Your task to perform on an android device: turn off location history Image 0: 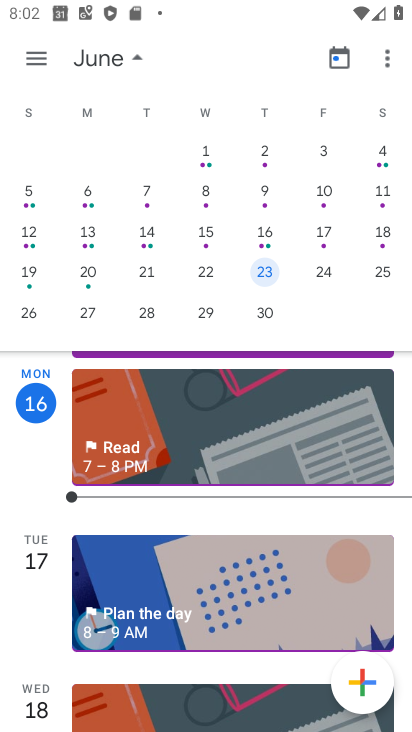
Step 0: press home button
Your task to perform on an android device: turn off location history Image 1: 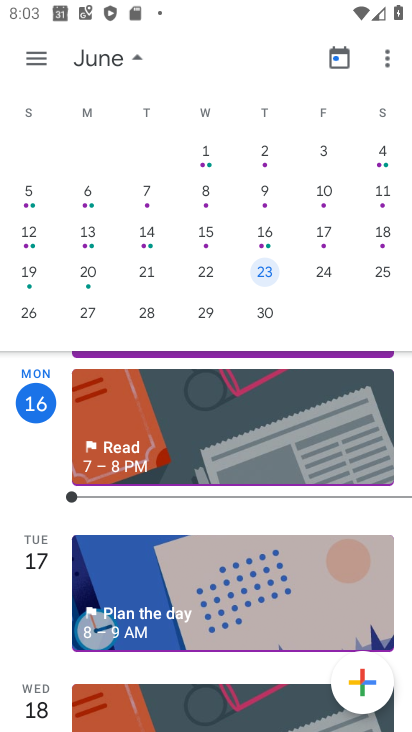
Step 1: drag from (209, 526) to (246, 153)
Your task to perform on an android device: turn off location history Image 2: 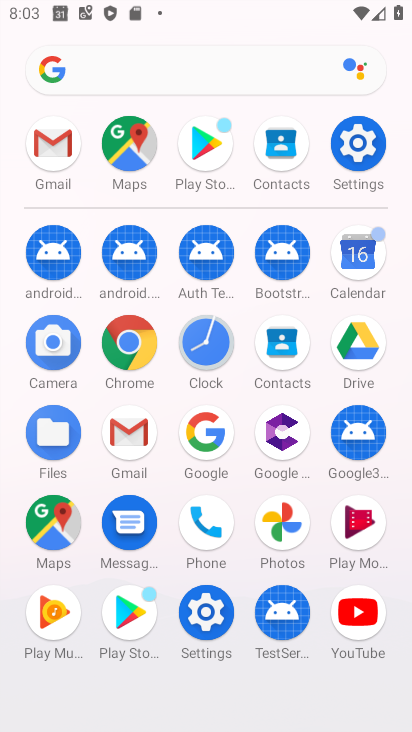
Step 2: click (359, 138)
Your task to perform on an android device: turn off location history Image 3: 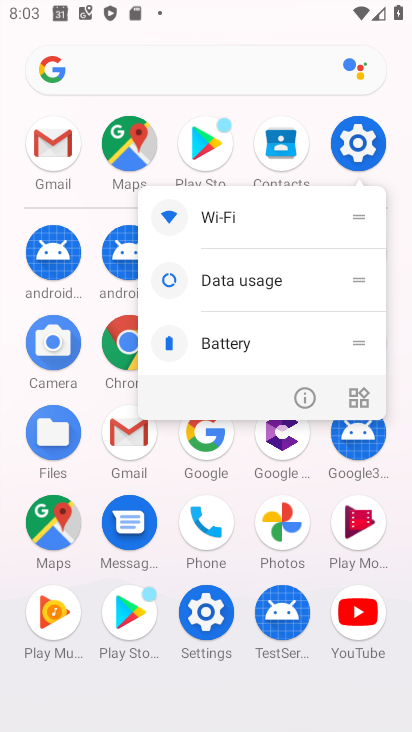
Step 3: click (304, 386)
Your task to perform on an android device: turn off location history Image 4: 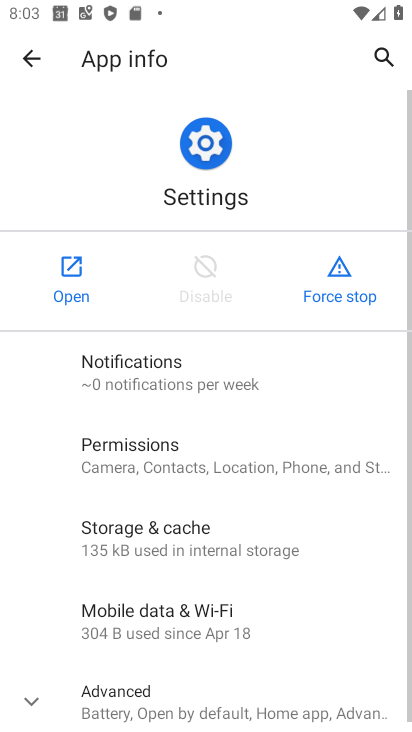
Step 4: click (65, 283)
Your task to perform on an android device: turn off location history Image 5: 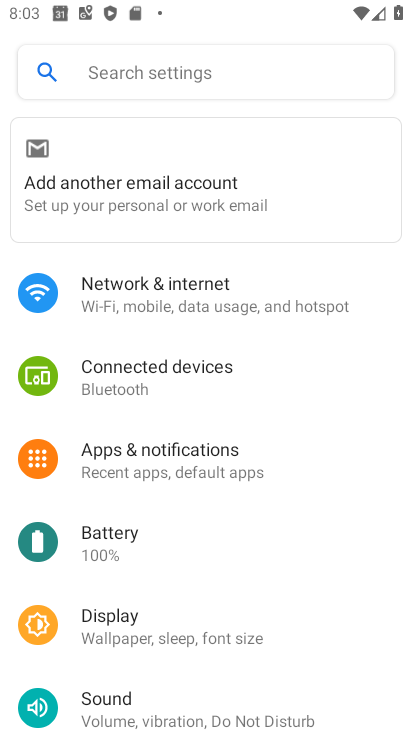
Step 5: drag from (194, 647) to (277, 84)
Your task to perform on an android device: turn off location history Image 6: 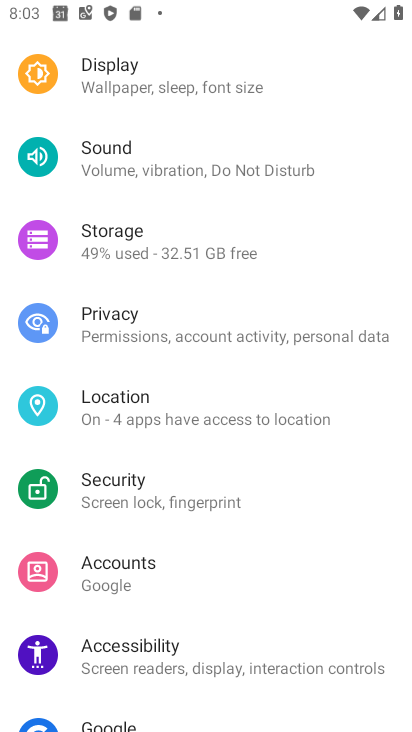
Step 6: click (171, 407)
Your task to perform on an android device: turn off location history Image 7: 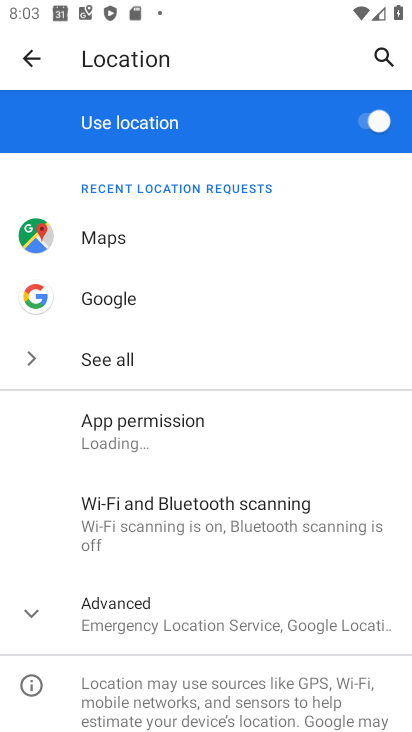
Step 7: click (162, 606)
Your task to perform on an android device: turn off location history Image 8: 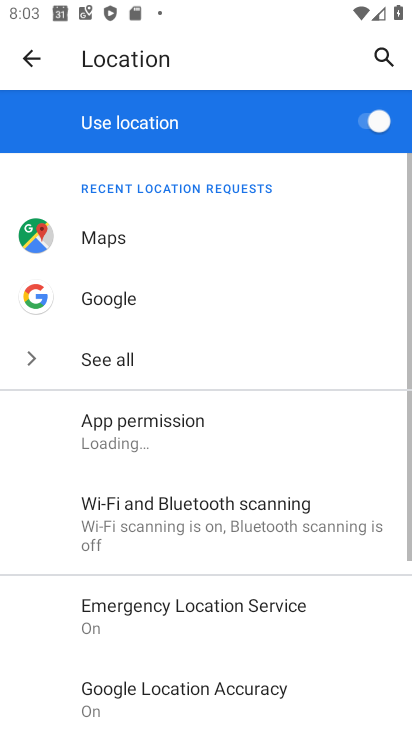
Step 8: drag from (162, 606) to (229, 111)
Your task to perform on an android device: turn off location history Image 9: 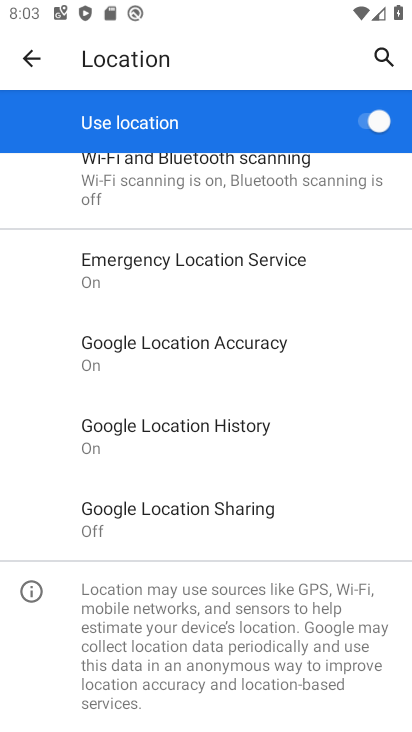
Step 9: click (205, 411)
Your task to perform on an android device: turn off location history Image 10: 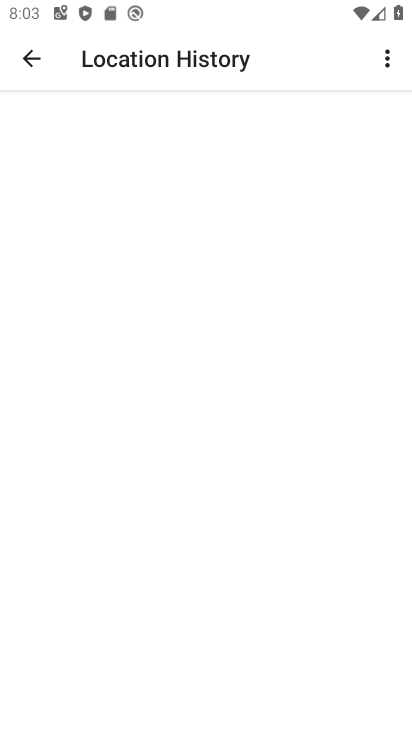
Step 10: drag from (210, 534) to (251, 139)
Your task to perform on an android device: turn off location history Image 11: 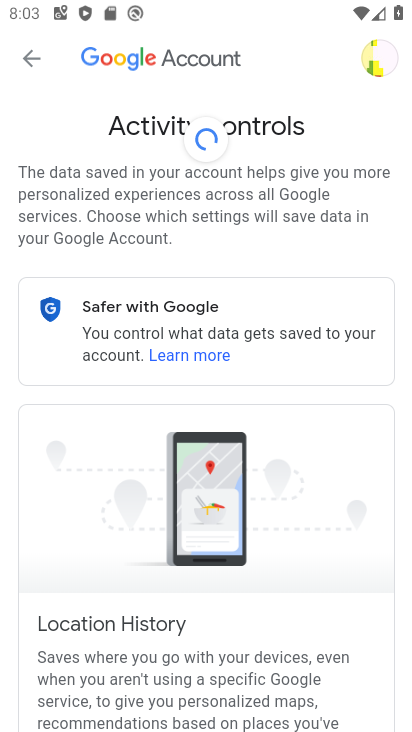
Step 11: drag from (262, 555) to (343, 92)
Your task to perform on an android device: turn off location history Image 12: 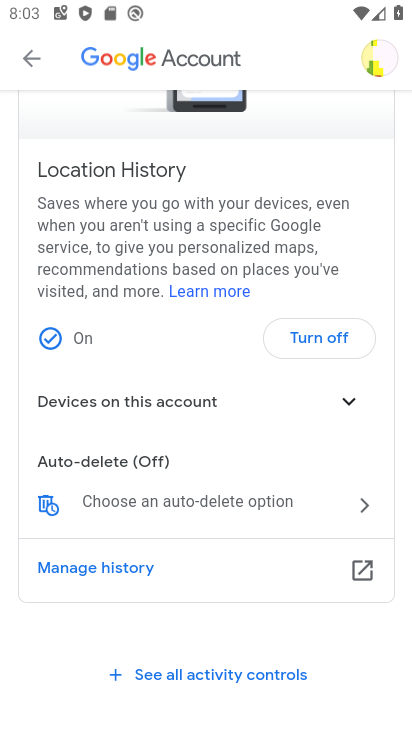
Step 12: click (324, 349)
Your task to perform on an android device: turn off location history Image 13: 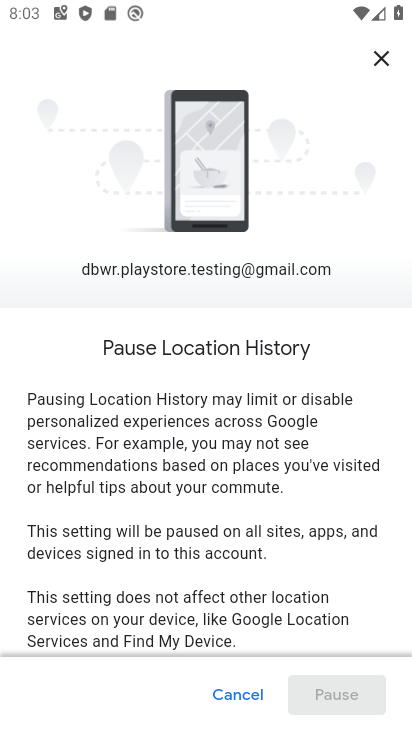
Step 13: drag from (260, 508) to (353, 23)
Your task to perform on an android device: turn off location history Image 14: 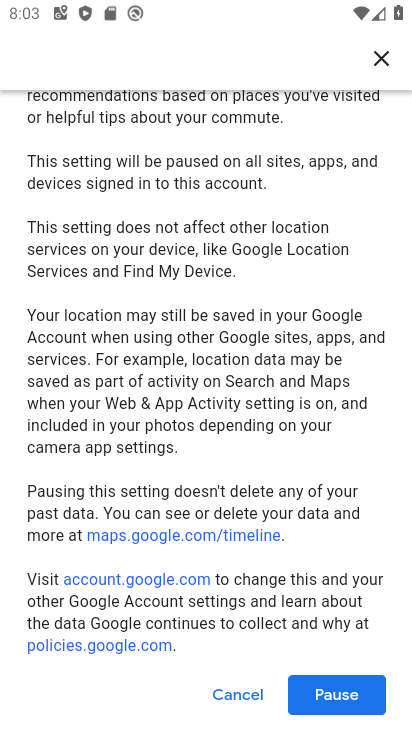
Step 14: click (327, 691)
Your task to perform on an android device: turn off location history Image 15: 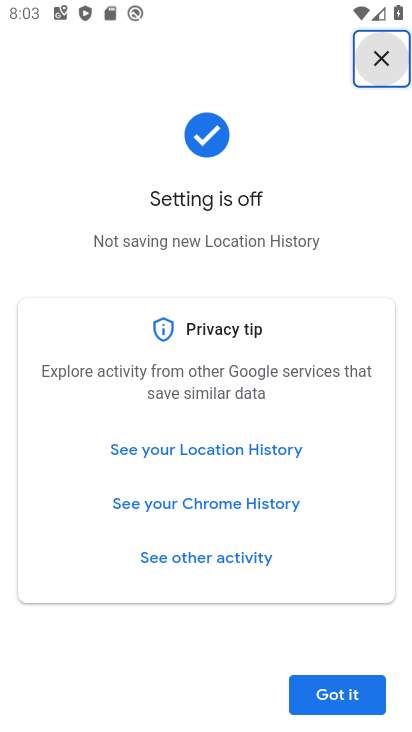
Step 15: click (363, 698)
Your task to perform on an android device: turn off location history Image 16: 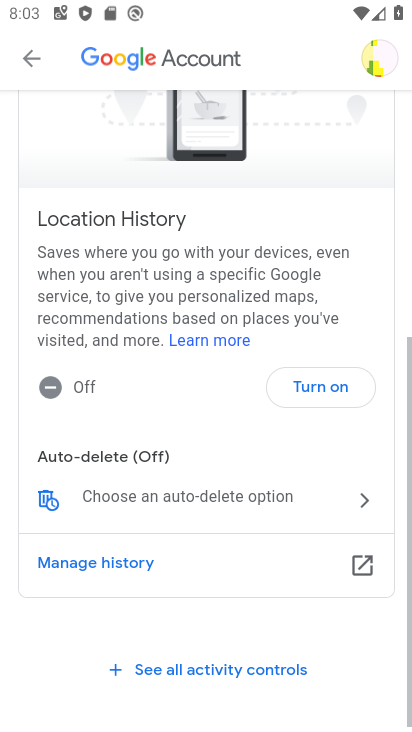
Step 16: task complete